Your task to perform on an android device: see sites visited before in the chrome app Image 0: 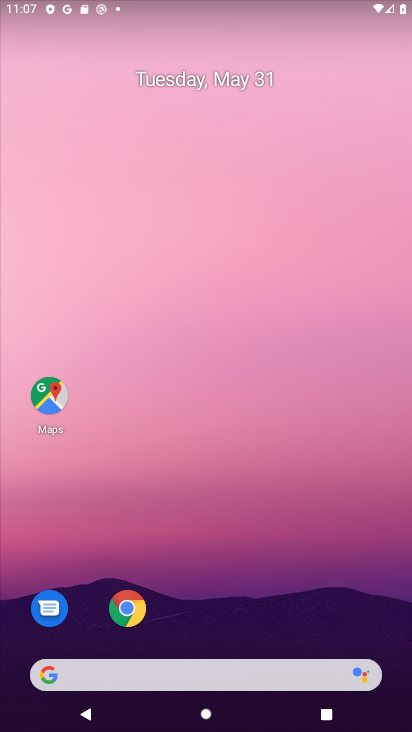
Step 0: click (212, 627)
Your task to perform on an android device: see sites visited before in the chrome app Image 1: 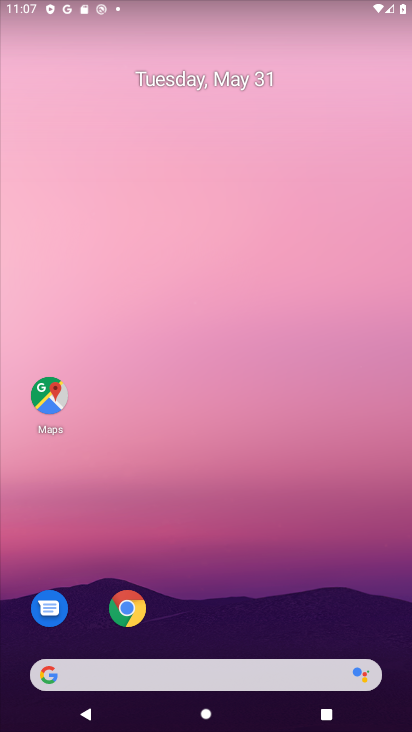
Step 1: click (126, 616)
Your task to perform on an android device: see sites visited before in the chrome app Image 2: 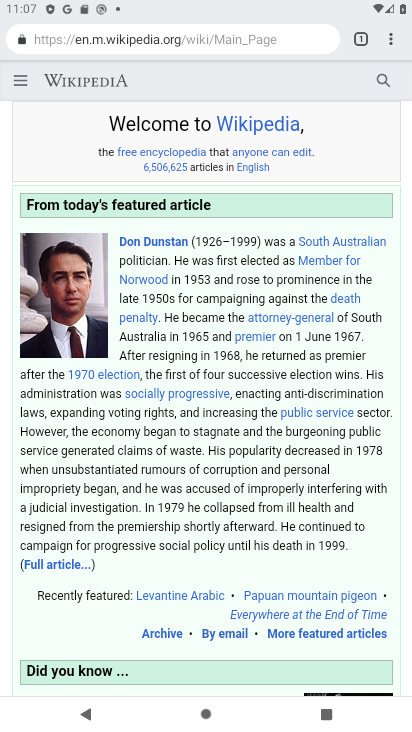
Step 2: task complete